Your task to perform on an android device: Set the phone to "Do not disturb". Image 0: 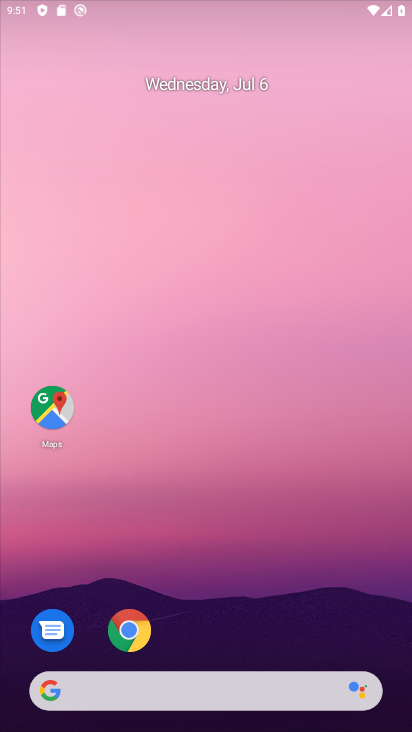
Step 0: drag from (346, 661) to (353, 222)
Your task to perform on an android device: Set the phone to "Do not disturb". Image 1: 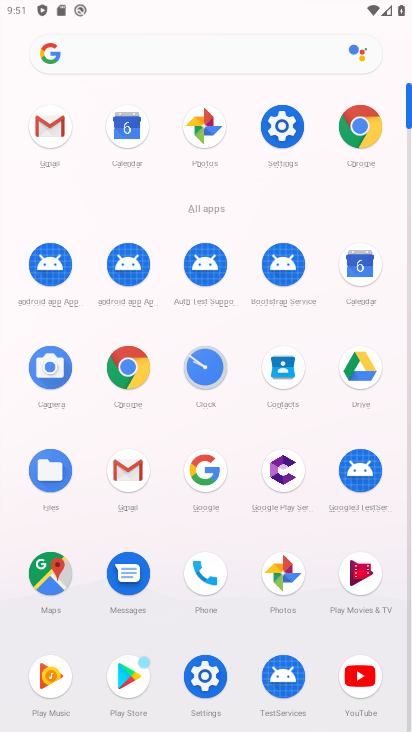
Step 1: drag from (365, 12) to (265, 679)
Your task to perform on an android device: Set the phone to "Do not disturb". Image 2: 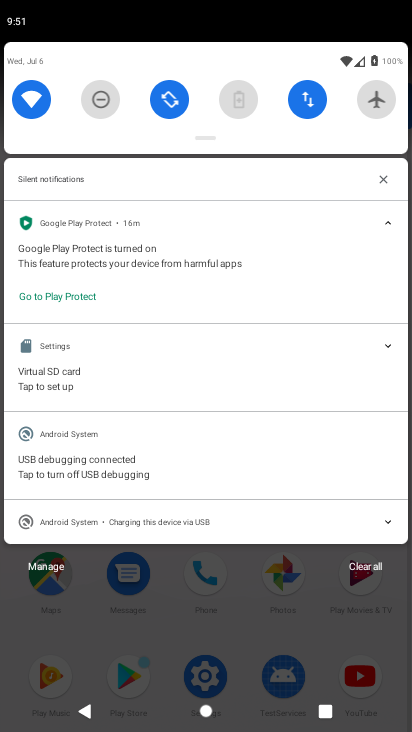
Step 2: click (95, 81)
Your task to perform on an android device: Set the phone to "Do not disturb". Image 3: 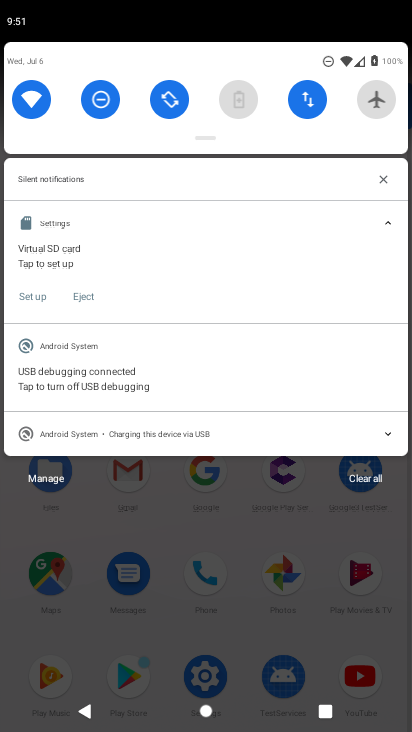
Step 3: task complete